Your task to perform on an android device: check google app version Image 0: 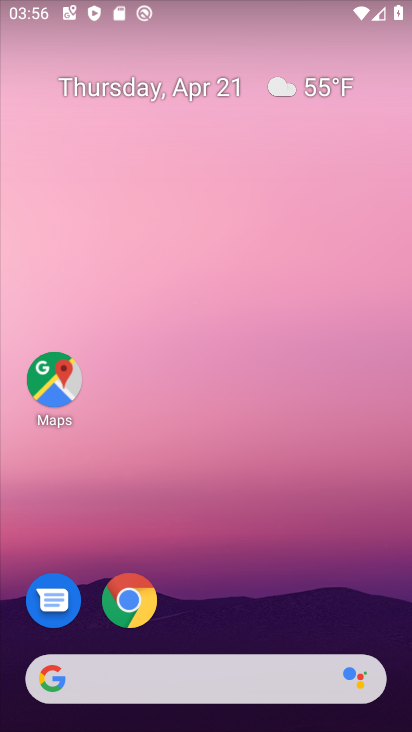
Step 0: drag from (236, 605) to (232, 181)
Your task to perform on an android device: check google app version Image 1: 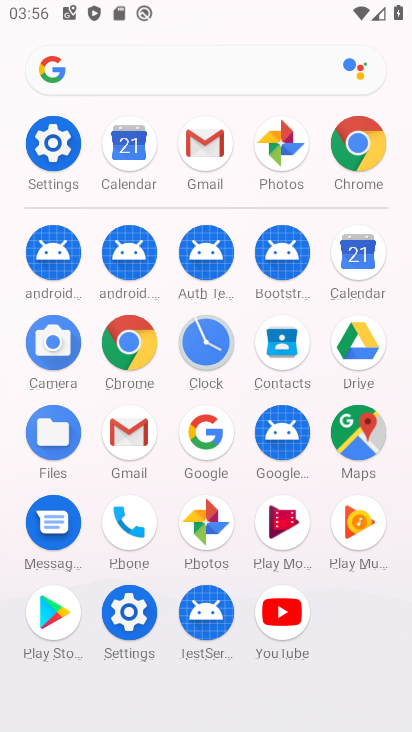
Step 1: click (210, 437)
Your task to perform on an android device: check google app version Image 2: 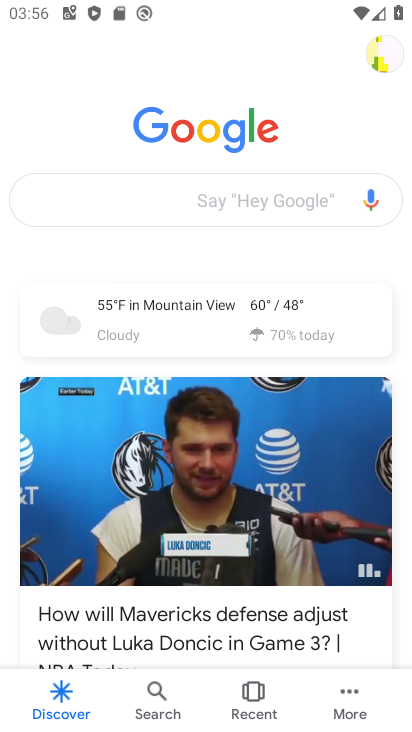
Step 2: click (342, 706)
Your task to perform on an android device: check google app version Image 3: 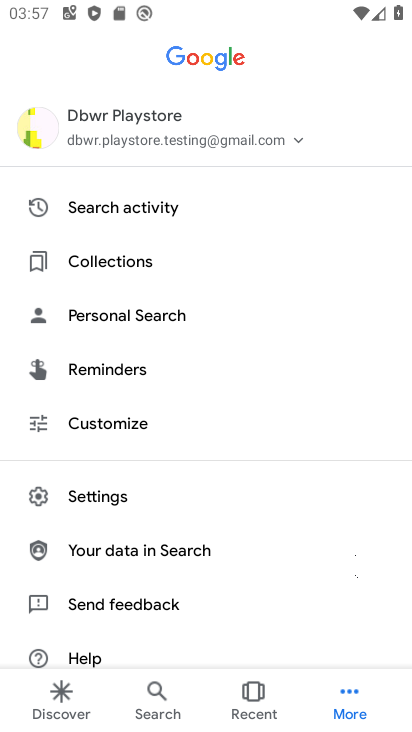
Step 3: click (129, 500)
Your task to perform on an android device: check google app version Image 4: 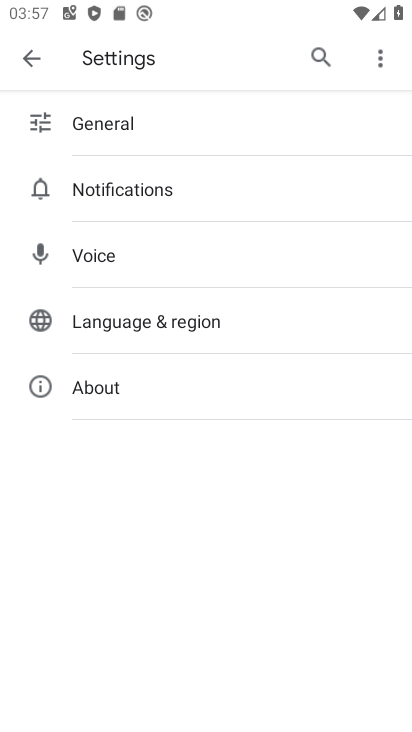
Step 4: click (104, 380)
Your task to perform on an android device: check google app version Image 5: 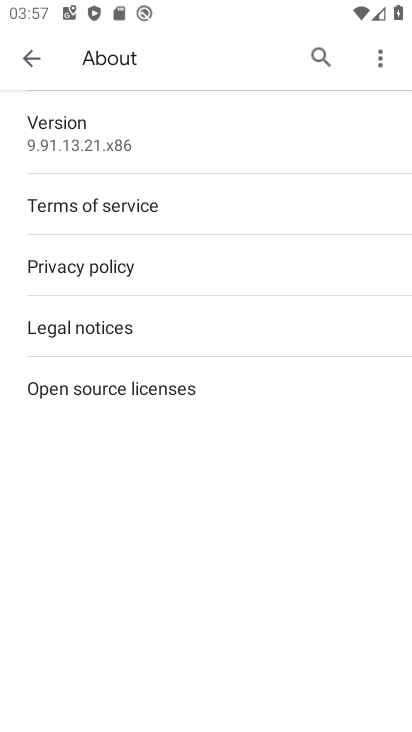
Step 5: click (101, 144)
Your task to perform on an android device: check google app version Image 6: 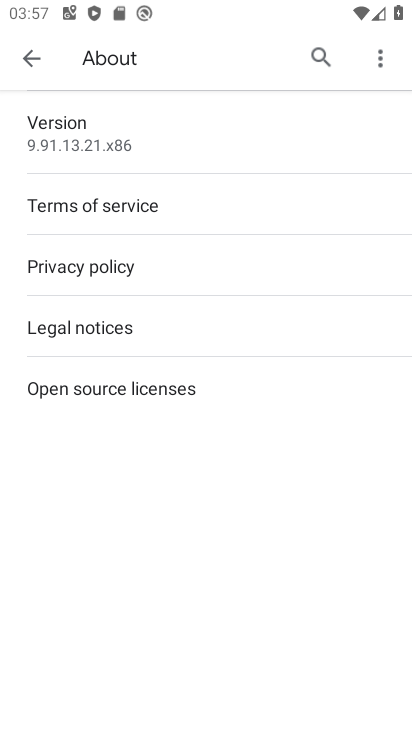
Step 6: task complete